Your task to perform on an android device: all mails in gmail Image 0: 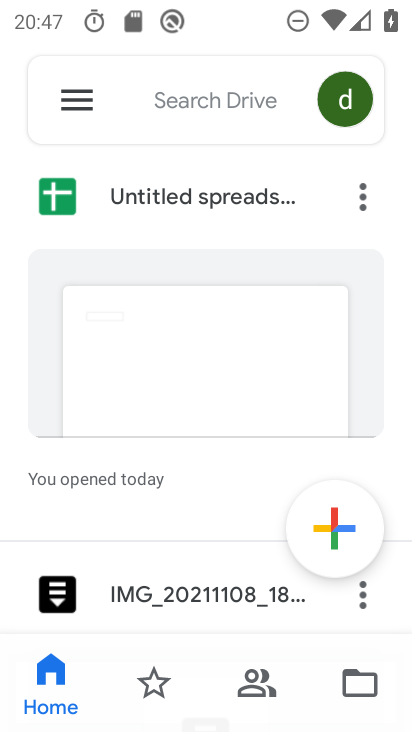
Step 0: press home button
Your task to perform on an android device: all mails in gmail Image 1: 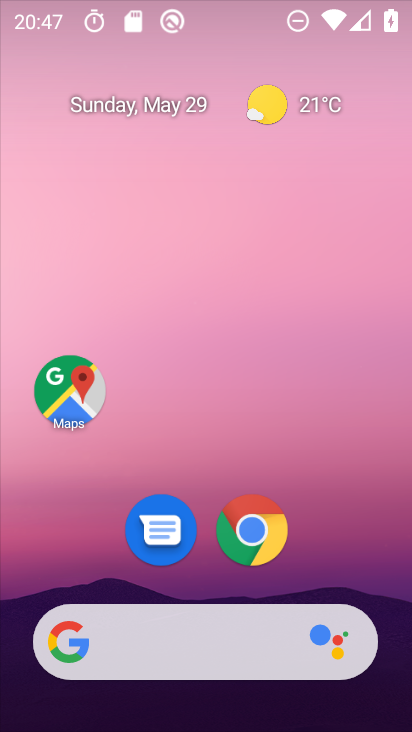
Step 1: drag from (257, 689) to (242, 101)
Your task to perform on an android device: all mails in gmail Image 2: 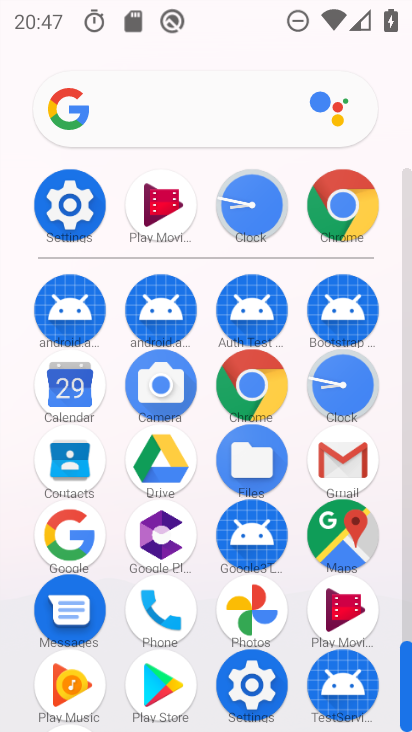
Step 2: click (333, 470)
Your task to perform on an android device: all mails in gmail Image 3: 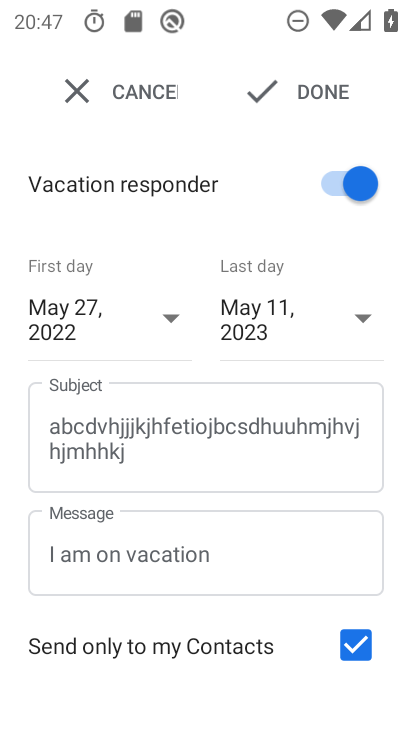
Step 3: click (70, 100)
Your task to perform on an android device: all mails in gmail Image 4: 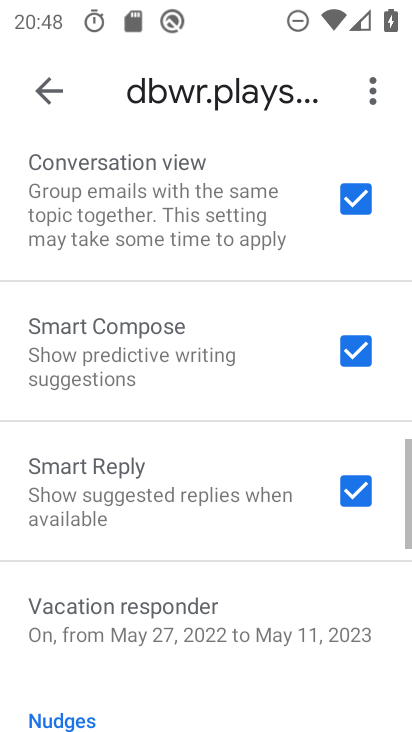
Step 4: click (39, 101)
Your task to perform on an android device: all mails in gmail Image 5: 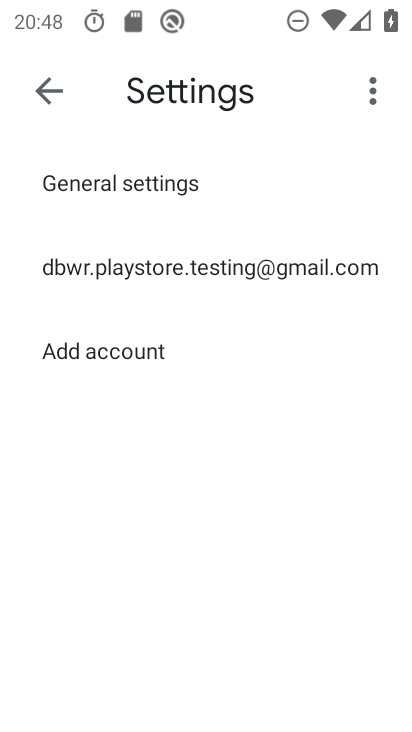
Step 5: click (31, 107)
Your task to perform on an android device: all mails in gmail Image 6: 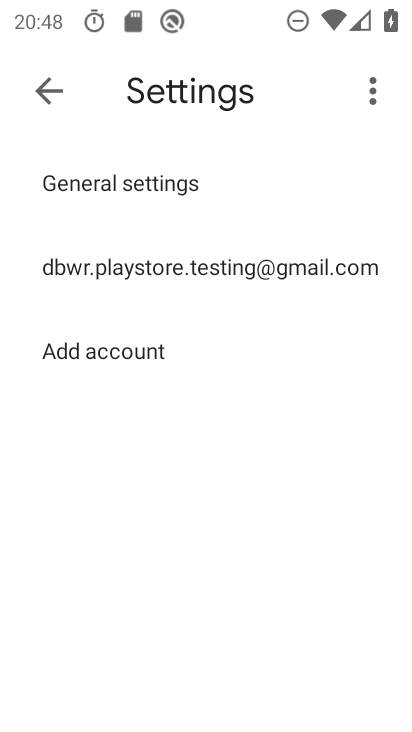
Step 6: click (37, 97)
Your task to perform on an android device: all mails in gmail Image 7: 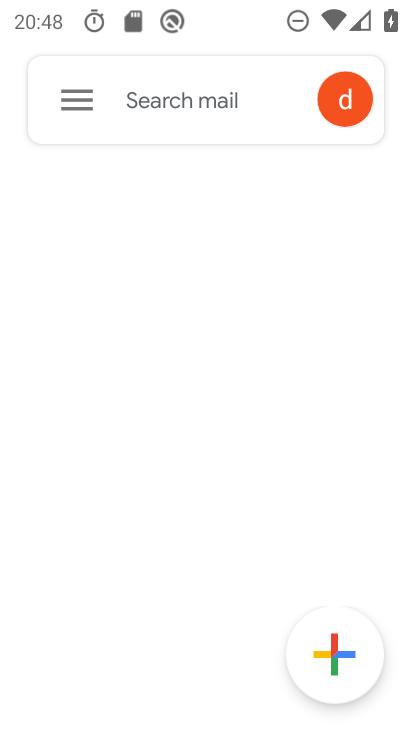
Step 7: click (102, 130)
Your task to perform on an android device: all mails in gmail Image 8: 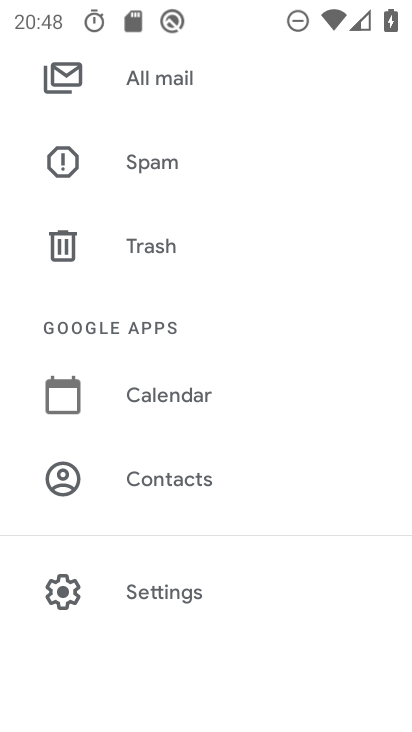
Step 8: click (185, 88)
Your task to perform on an android device: all mails in gmail Image 9: 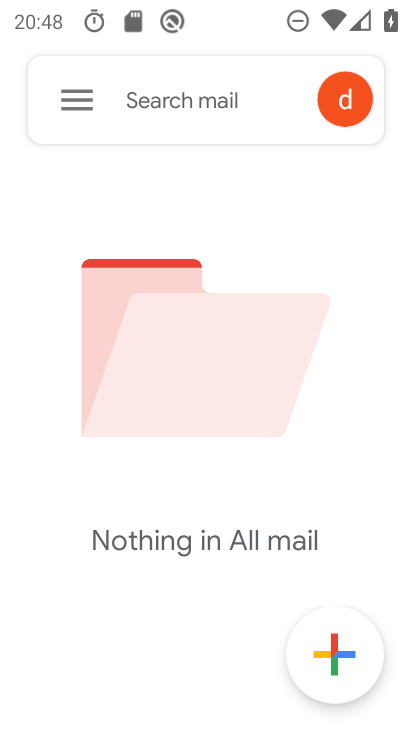
Step 9: task complete